Your task to perform on an android device: Go to accessibility settings Image 0: 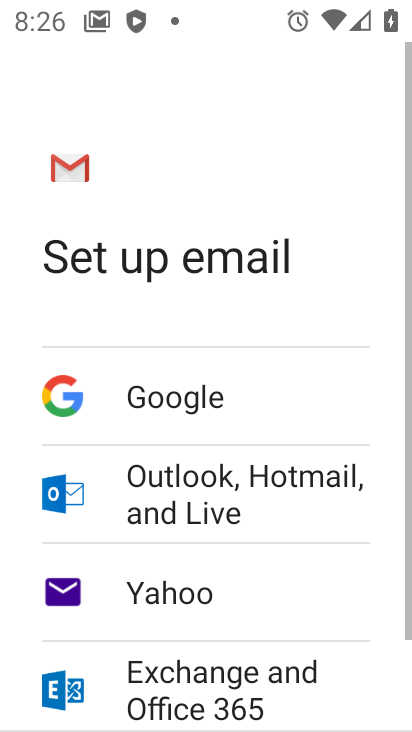
Step 0: press home button
Your task to perform on an android device: Go to accessibility settings Image 1: 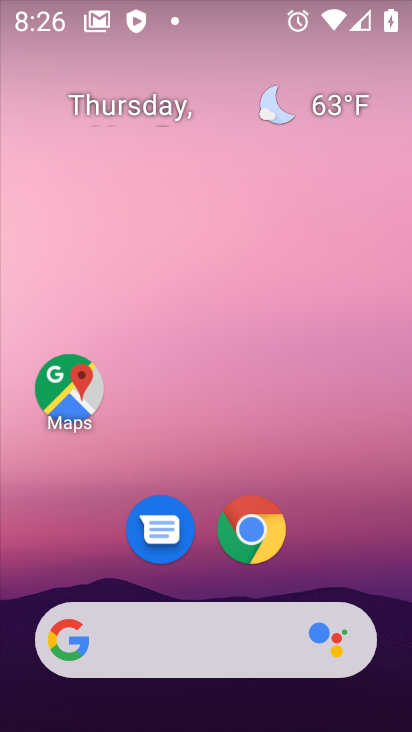
Step 1: drag from (202, 581) to (195, 97)
Your task to perform on an android device: Go to accessibility settings Image 2: 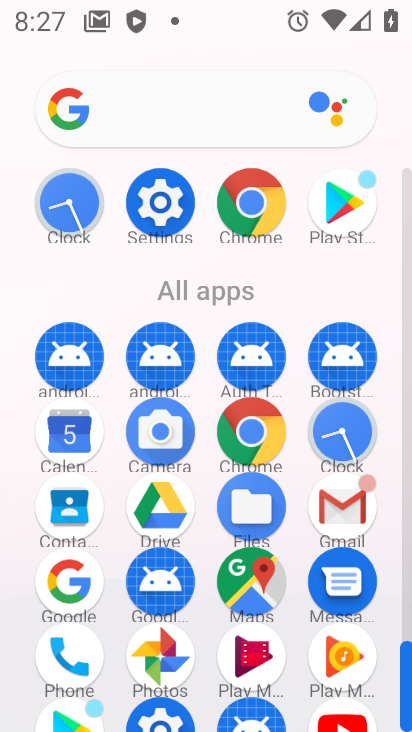
Step 2: click (159, 202)
Your task to perform on an android device: Go to accessibility settings Image 3: 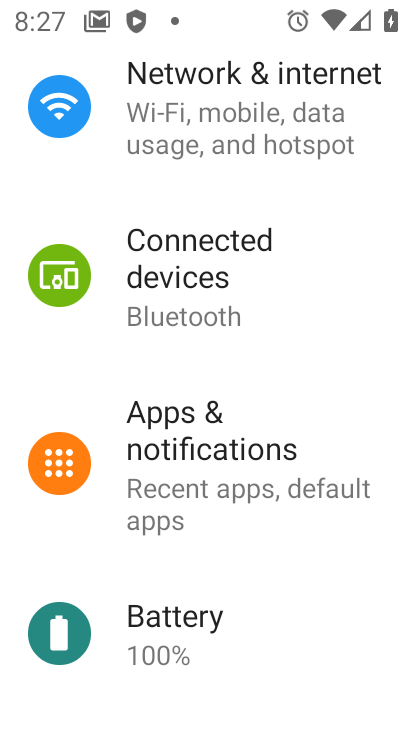
Step 3: drag from (253, 610) to (300, 152)
Your task to perform on an android device: Go to accessibility settings Image 4: 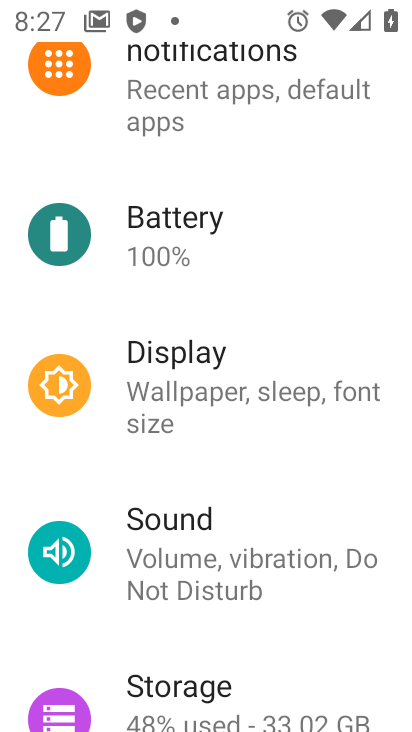
Step 4: drag from (199, 633) to (224, 205)
Your task to perform on an android device: Go to accessibility settings Image 5: 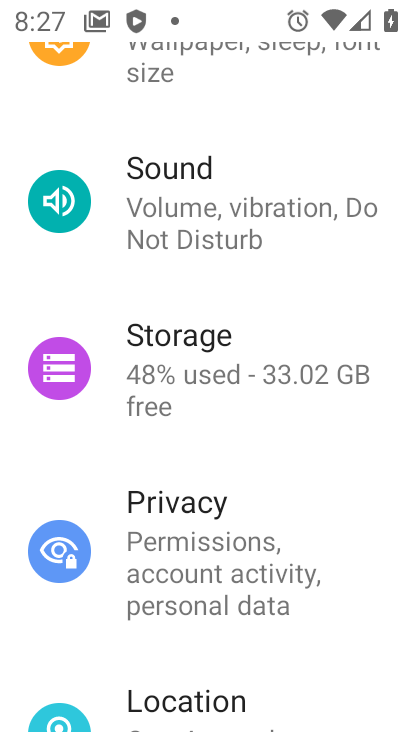
Step 5: drag from (227, 572) to (253, 234)
Your task to perform on an android device: Go to accessibility settings Image 6: 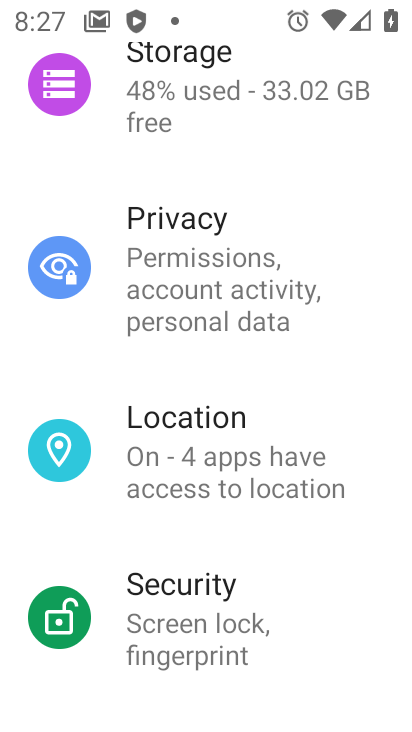
Step 6: drag from (220, 497) to (237, 199)
Your task to perform on an android device: Go to accessibility settings Image 7: 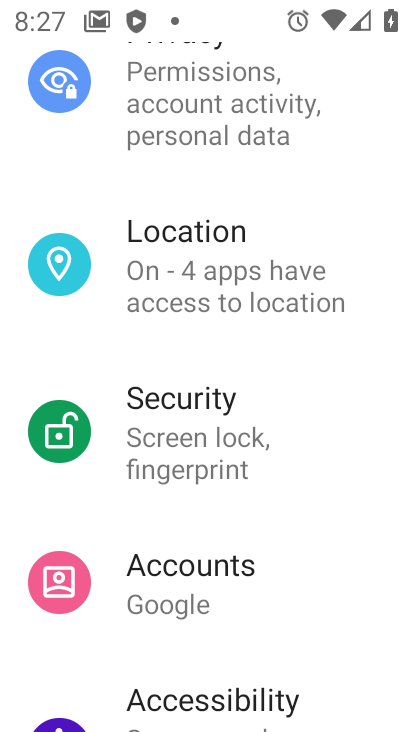
Step 7: drag from (244, 610) to (263, 331)
Your task to perform on an android device: Go to accessibility settings Image 8: 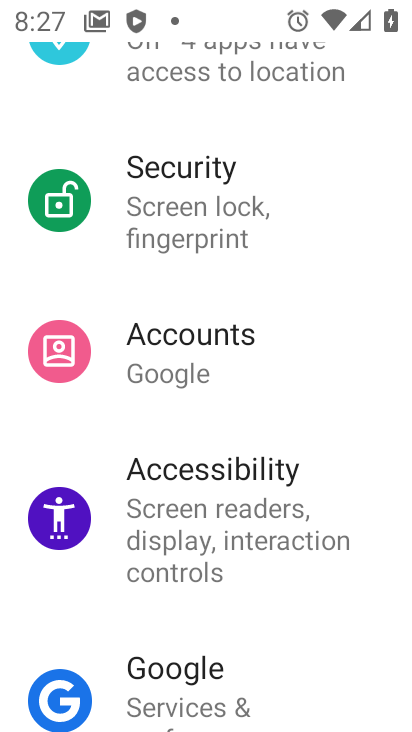
Step 8: click (258, 518)
Your task to perform on an android device: Go to accessibility settings Image 9: 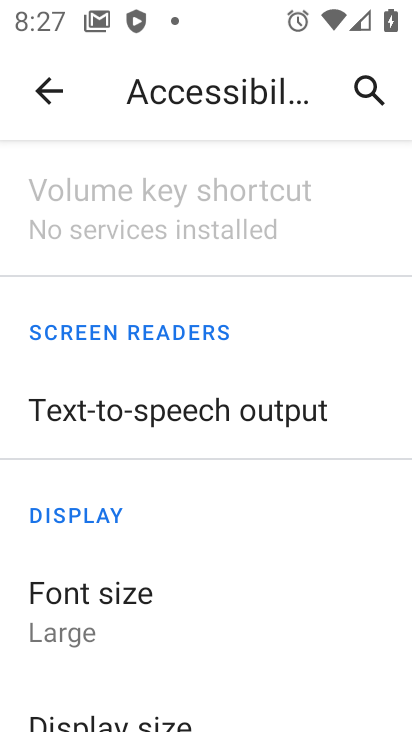
Step 9: task complete